Your task to perform on an android device: toggle javascript in the chrome app Image 0: 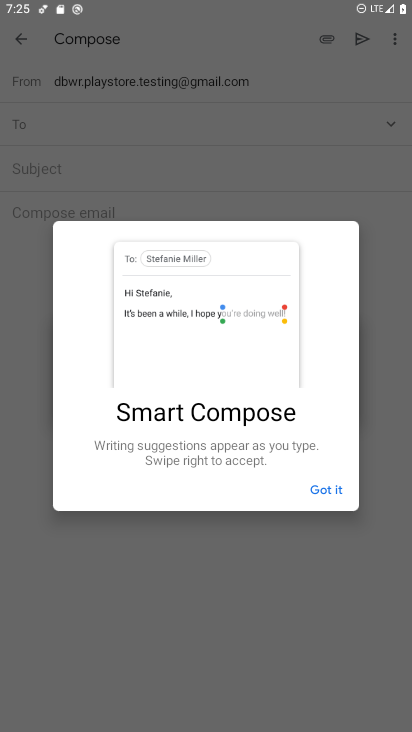
Step 0: press home button
Your task to perform on an android device: toggle javascript in the chrome app Image 1: 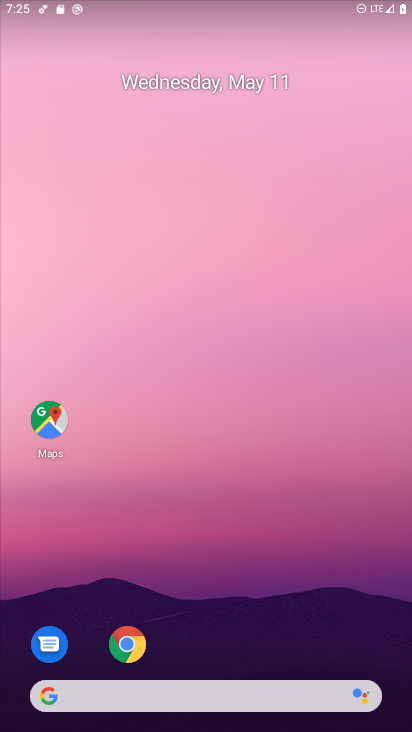
Step 1: click (125, 636)
Your task to perform on an android device: toggle javascript in the chrome app Image 2: 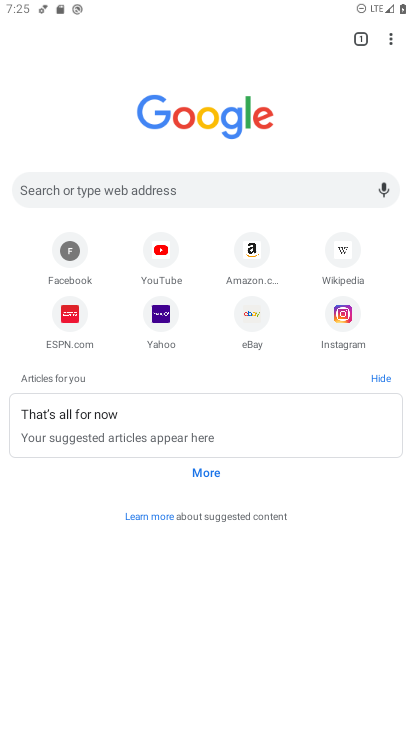
Step 2: click (391, 45)
Your task to perform on an android device: toggle javascript in the chrome app Image 3: 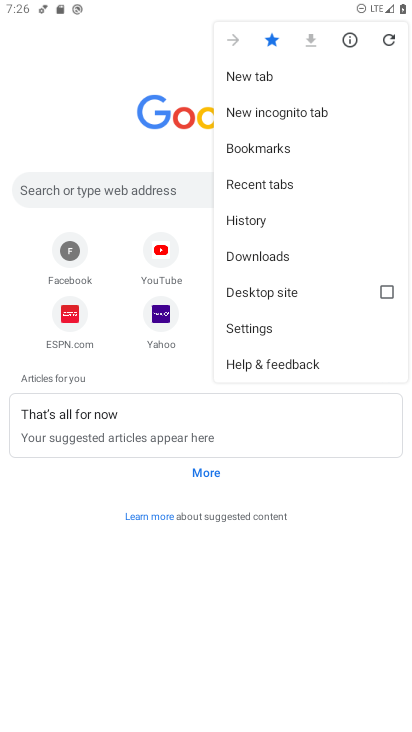
Step 3: click (247, 330)
Your task to perform on an android device: toggle javascript in the chrome app Image 4: 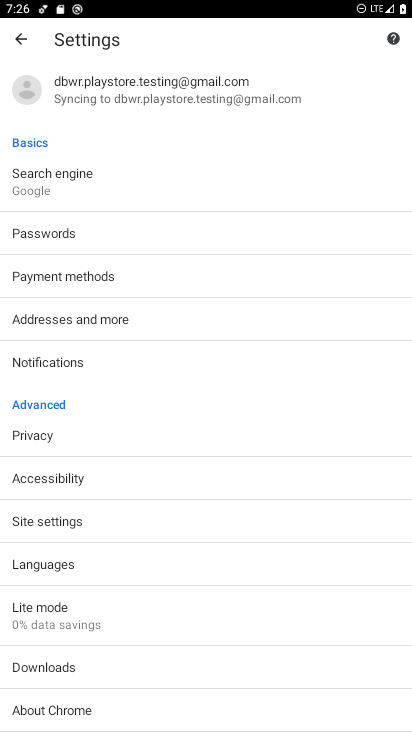
Step 4: drag from (125, 528) to (130, 203)
Your task to perform on an android device: toggle javascript in the chrome app Image 5: 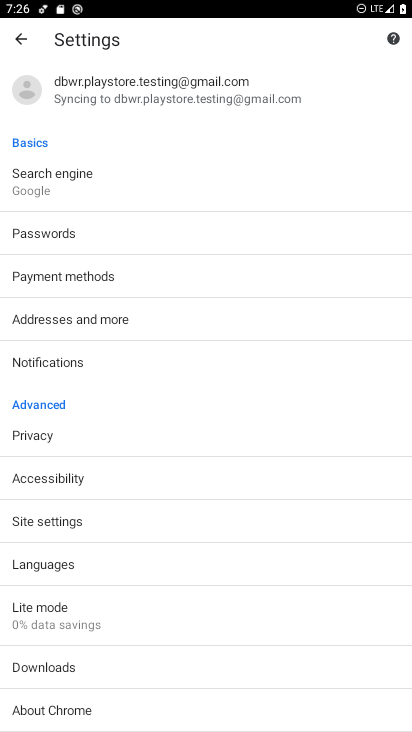
Step 5: click (61, 522)
Your task to perform on an android device: toggle javascript in the chrome app Image 6: 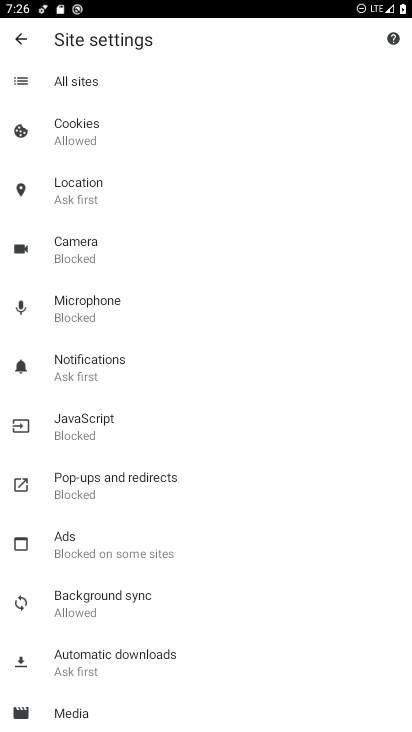
Step 6: click (107, 421)
Your task to perform on an android device: toggle javascript in the chrome app Image 7: 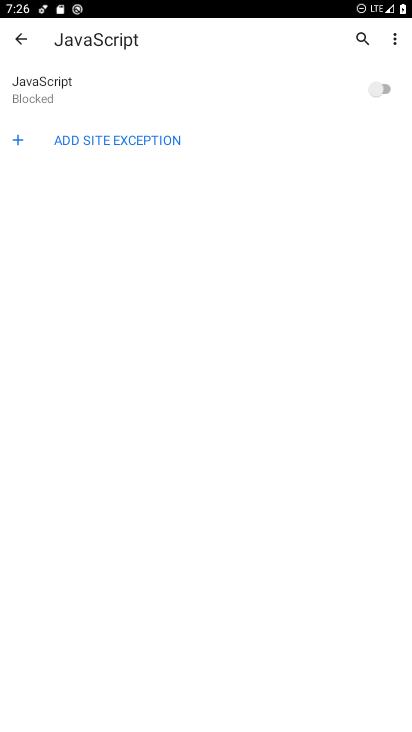
Step 7: click (376, 92)
Your task to perform on an android device: toggle javascript in the chrome app Image 8: 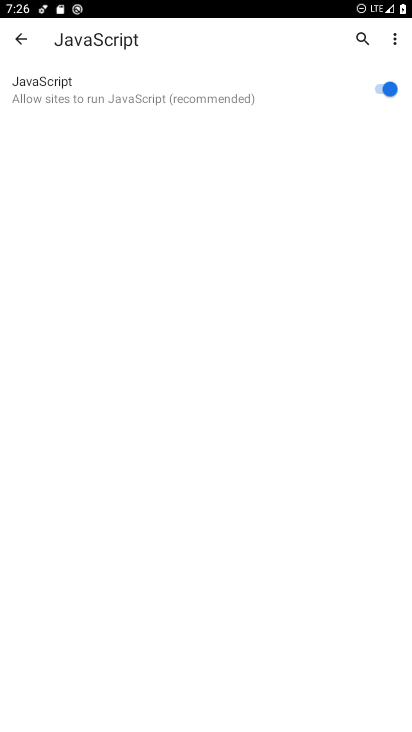
Step 8: task complete